Your task to perform on an android device: check android version Image 0: 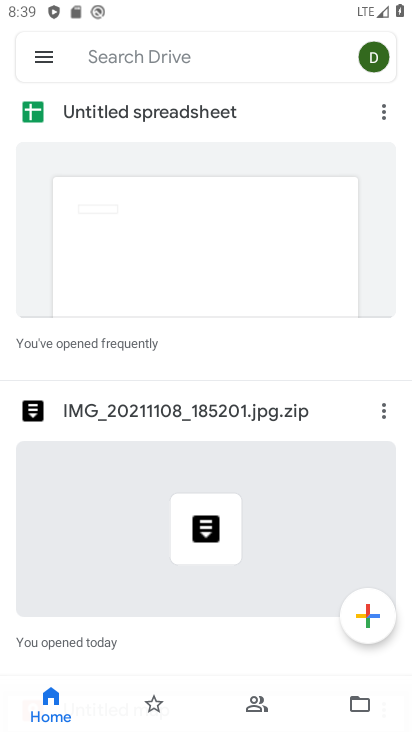
Step 0: press back button
Your task to perform on an android device: check android version Image 1: 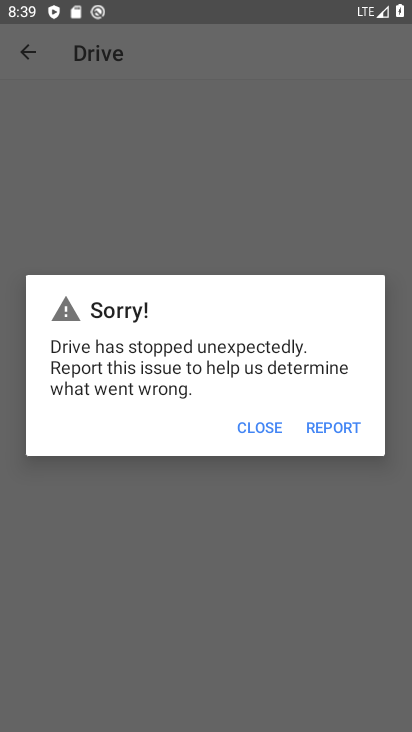
Step 1: press back button
Your task to perform on an android device: check android version Image 2: 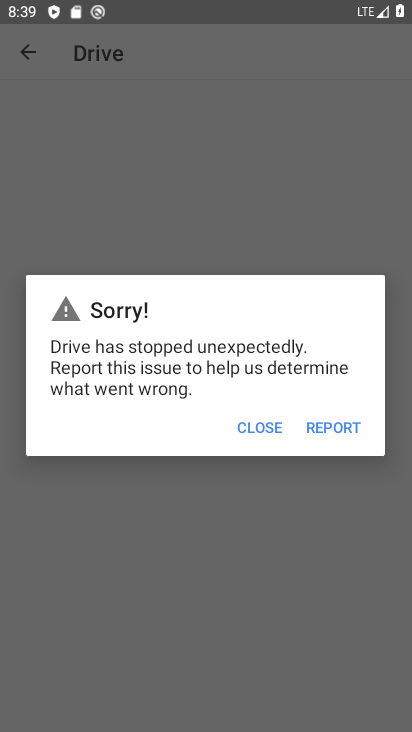
Step 2: press home button
Your task to perform on an android device: check android version Image 3: 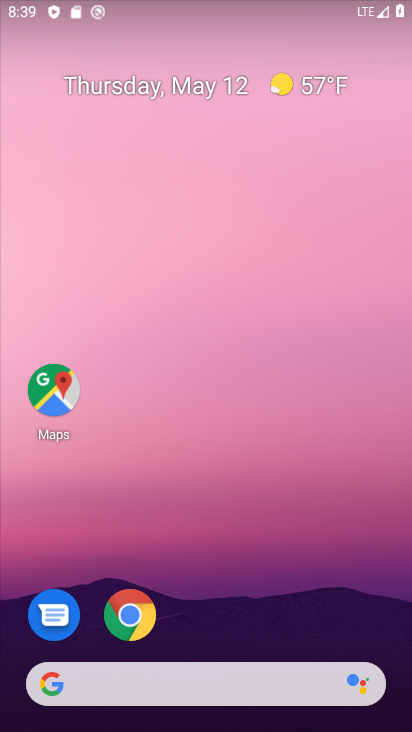
Step 3: drag from (242, 516) to (184, 97)
Your task to perform on an android device: check android version Image 4: 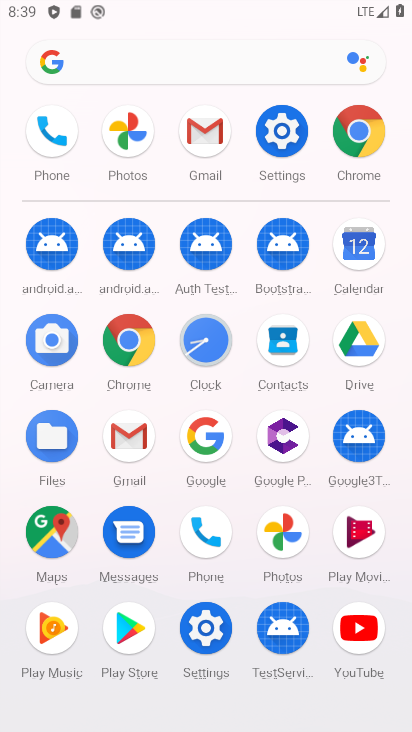
Step 4: click (206, 627)
Your task to perform on an android device: check android version Image 5: 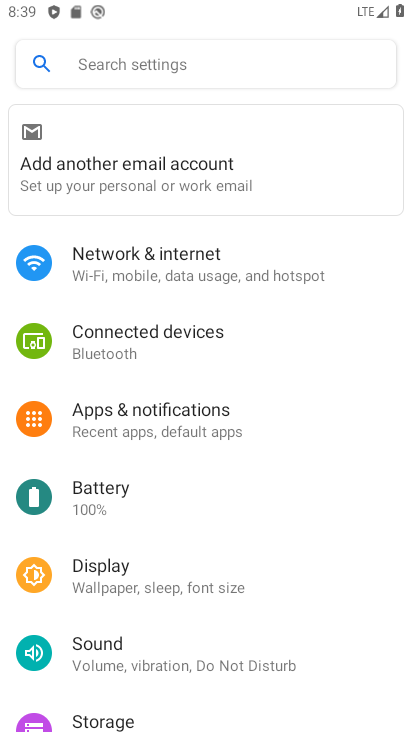
Step 5: drag from (206, 593) to (259, 191)
Your task to perform on an android device: check android version Image 6: 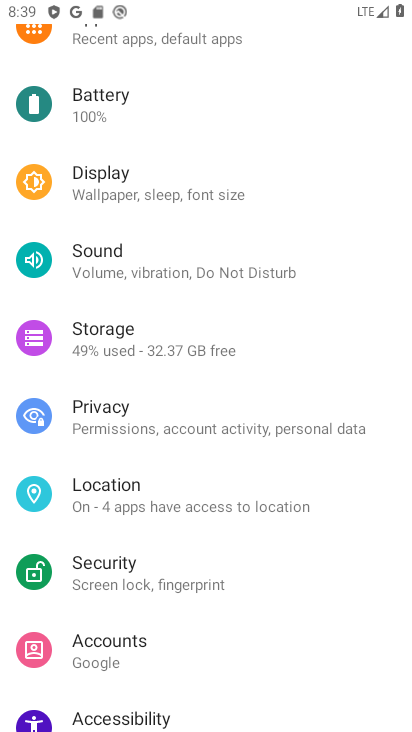
Step 6: drag from (219, 606) to (260, 145)
Your task to perform on an android device: check android version Image 7: 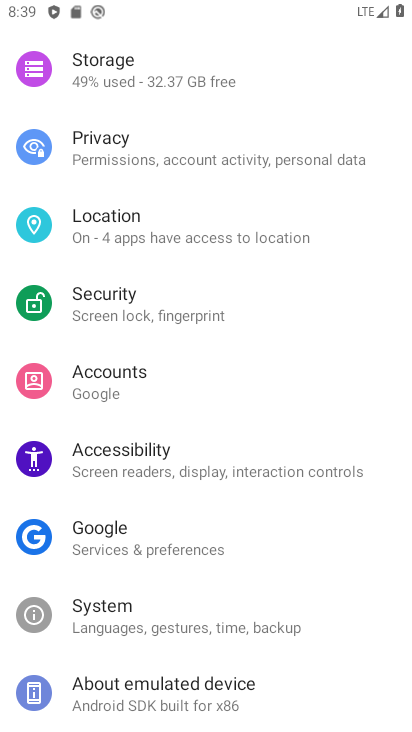
Step 7: drag from (243, 620) to (290, 148)
Your task to perform on an android device: check android version Image 8: 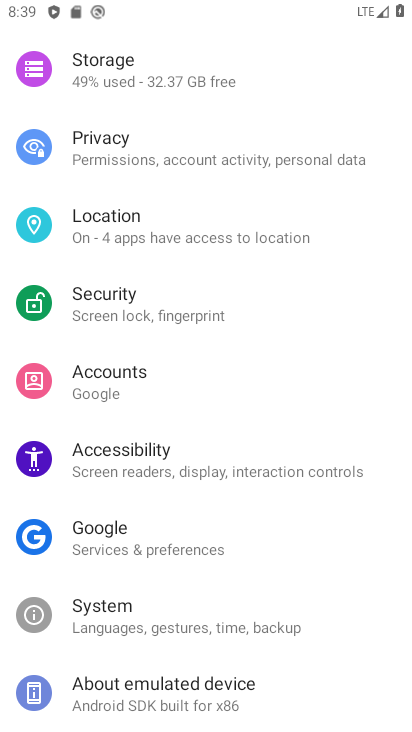
Step 8: click (174, 688)
Your task to perform on an android device: check android version Image 9: 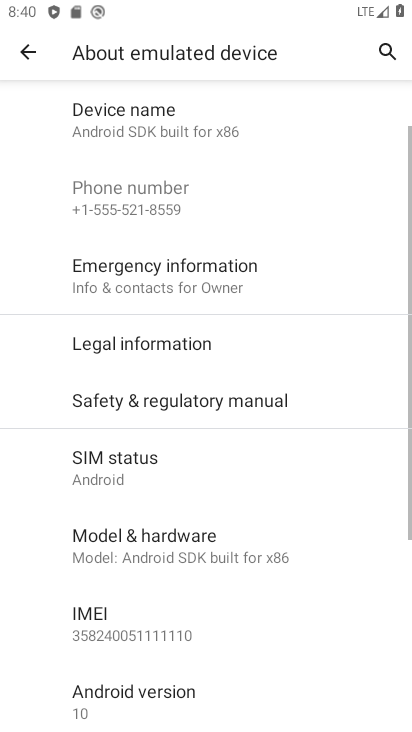
Step 9: task complete